Your task to perform on an android device: turn off smart reply in the gmail app Image 0: 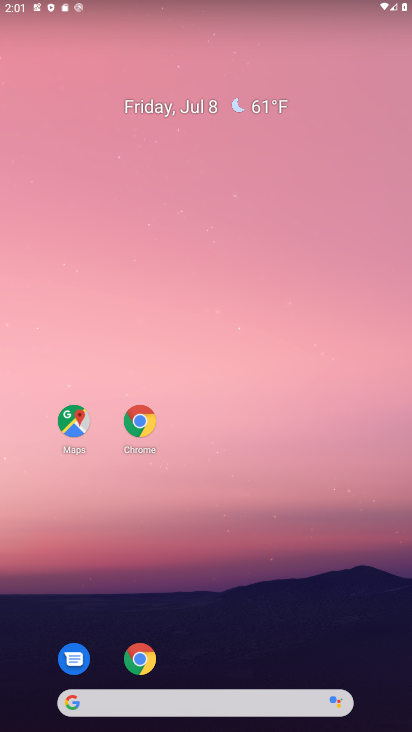
Step 0: drag from (240, 678) to (225, 1)
Your task to perform on an android device: turn off smart reply in the gmail app Image 1: 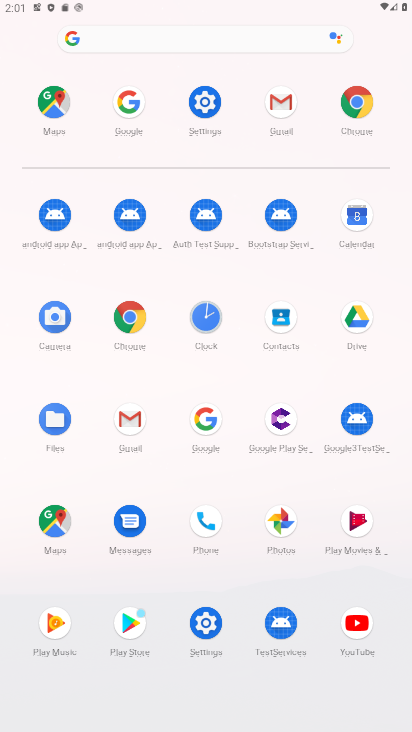
Step 1: click (132, 412)
Your task to perform on an android device: turn off smart reply in the gmail app Image 2: 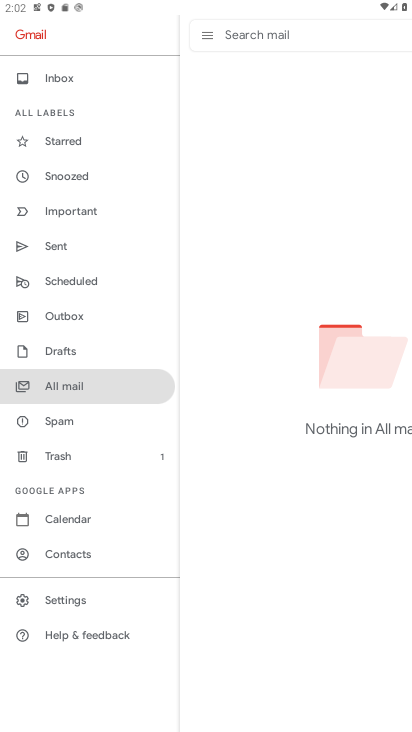
Step 2: click (58, 600)
Your task to perform on an android device: turn off smart reply in the gmail app Image 3: 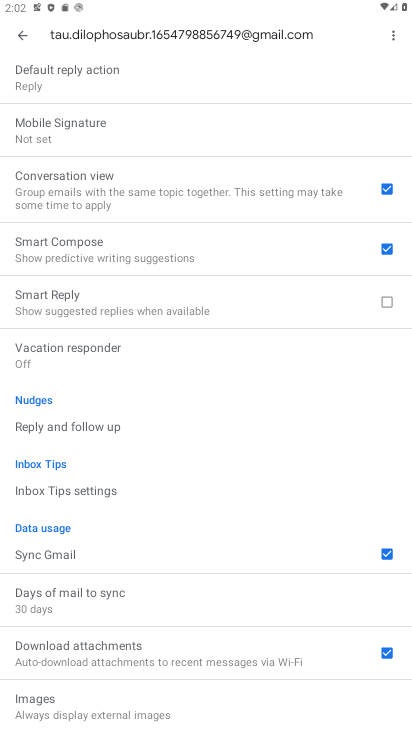
Step 3: task complete